Your task to perform on an android device: Is it going to rain tomorrow? Image 0: 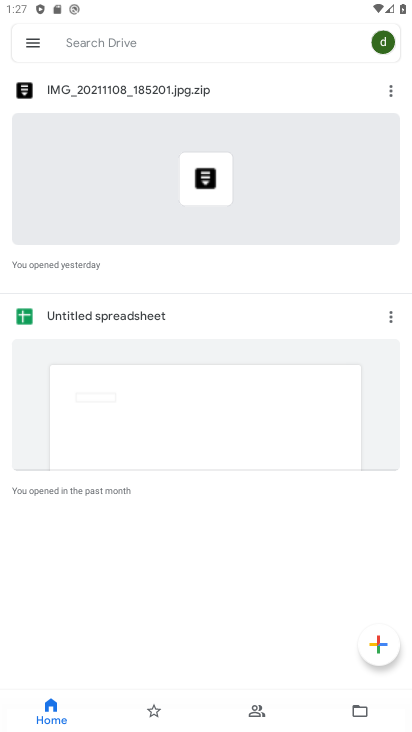
Step 0: press back button
Your task to perform on an android device: Is it going to rain tomorrow? Image 1: 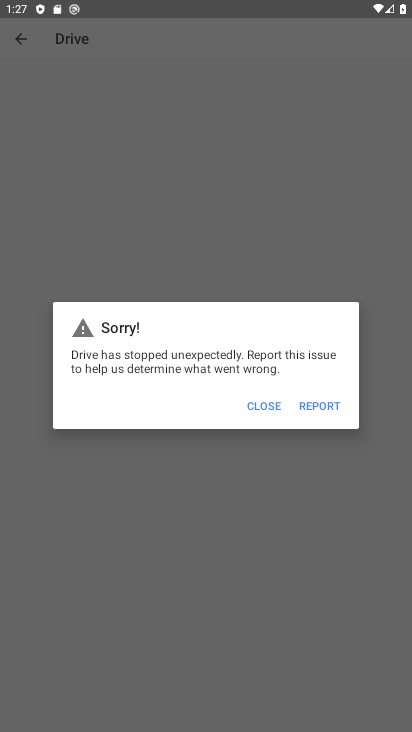
Step 1: press back button
Your task to perform on an android device: Is it going to rain tomorrow? Image 2: 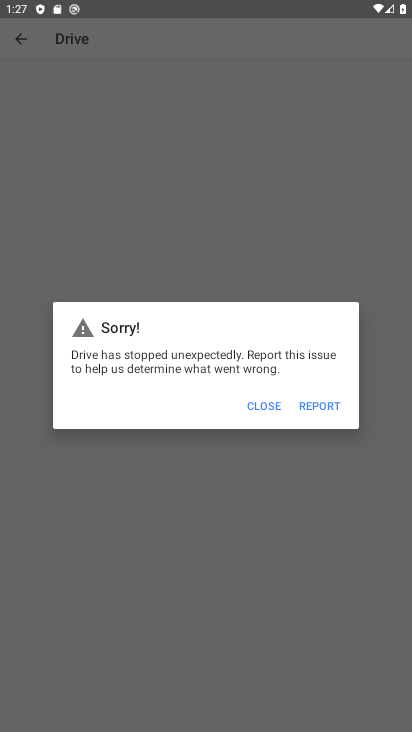
Step 2: press back button
Your task to perform on an android device: Is it going to rain tomorrow? Image 3: 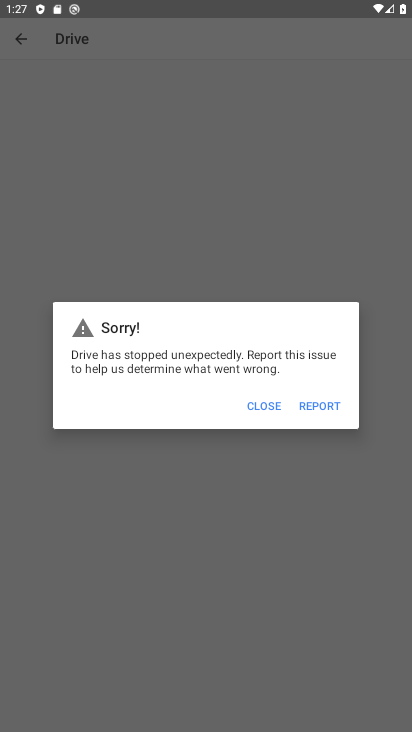
Step 3: press home button
Your task to perform on an android device: Is it going to rain tomorrow? Image 4: 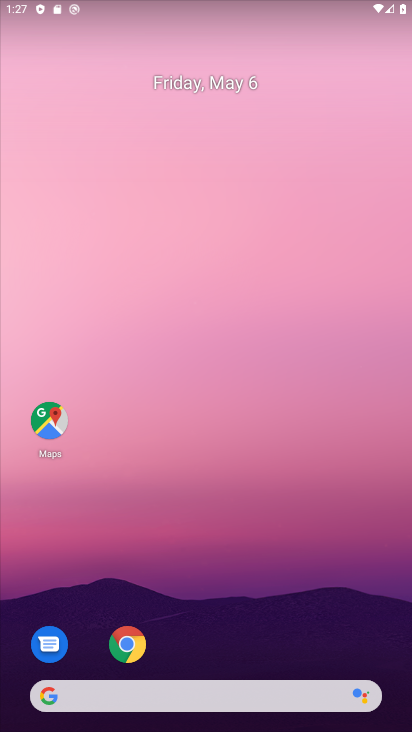
Step 4: click (183, 695)
Your task to perform on an android device: Is it going to rain tomorrow? Image 5: 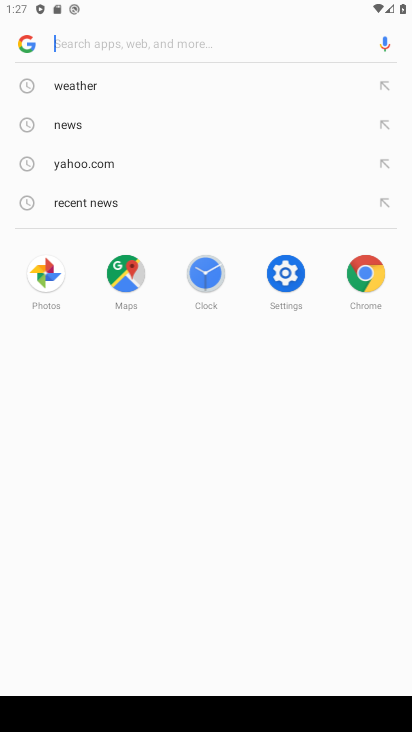
Step 5: click (103, 84)
Your task to perform on an android device: Is it going to rain tomorrow? Image 6: 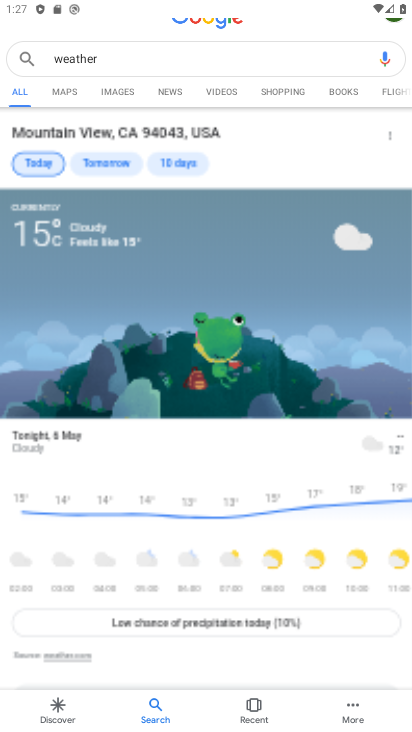
Step 6: click (101, 158)
Your task to perform on an android device: Is it going to rain tomorrow? Image 7: 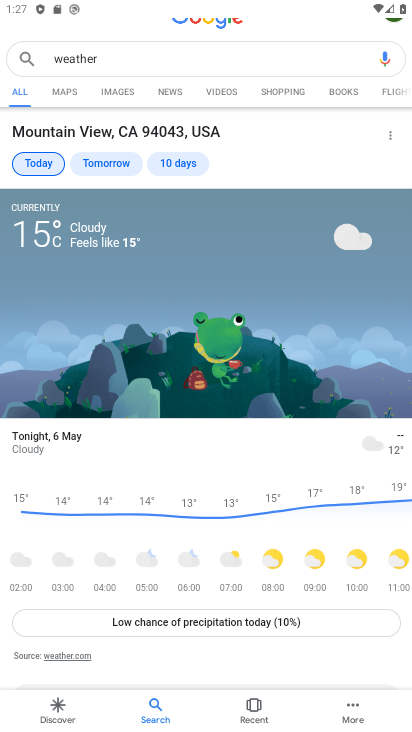
Step 7: click (101, 161)
Your task to perform on an android device: Is it going to rain tomorrow? Image 8: 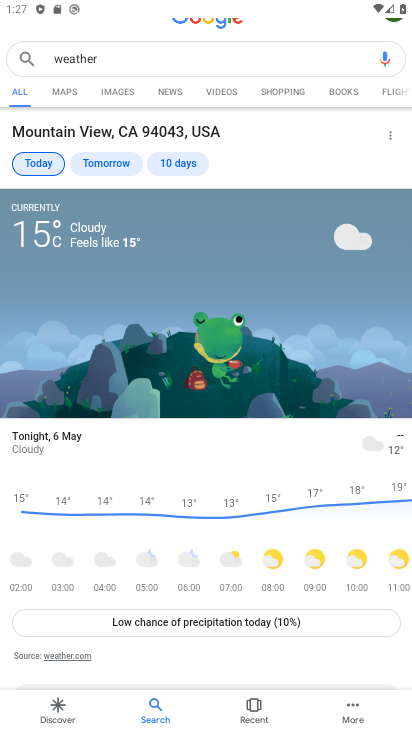
Step 8: click (101, 161)
Your task to perform on an android device: Is it going to rain tomorrow? Image 9: 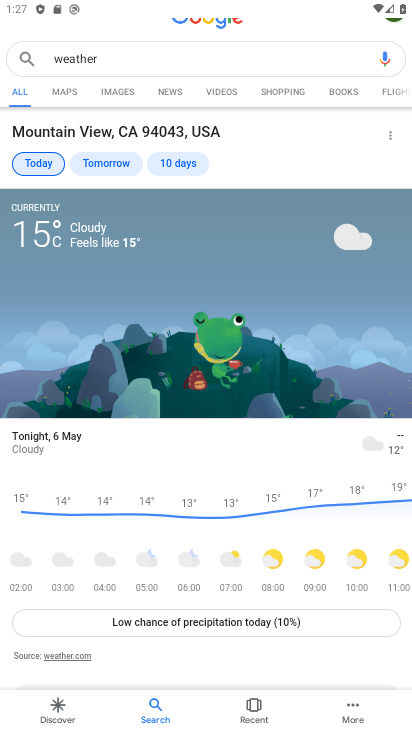
Step 9: click (109, 166)
Your task to perform on an android device: Is it going to rain tomorrow? Image 10: 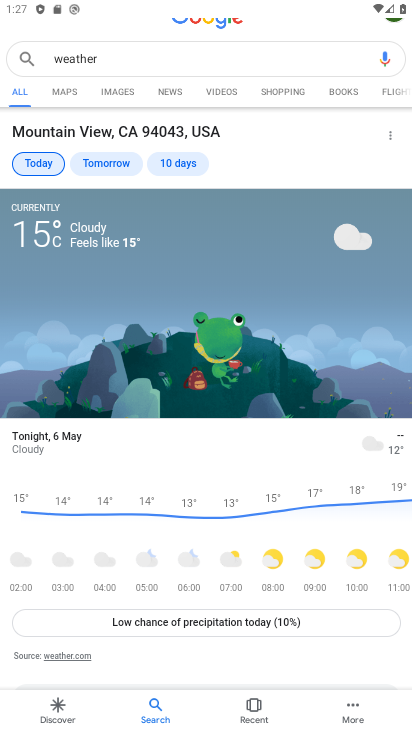
Step 10: drag from (341, 521) to (9, 538)
Your task to perform on an android device: Is it going to rain tomorrow? Image 11: 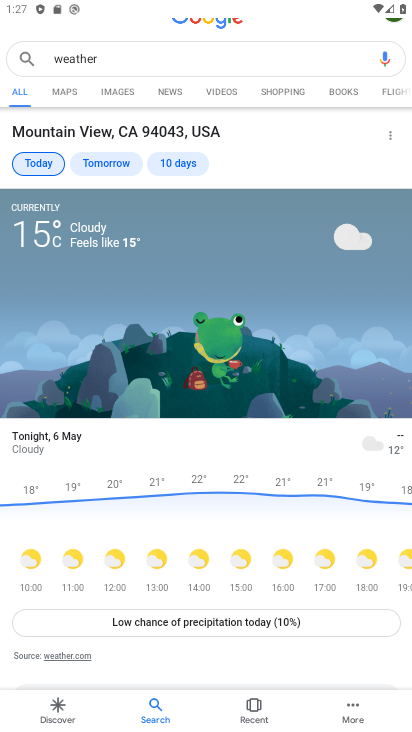
Step 11: drag from (239, 597) to (288, 99)
Your task to perform on an android device: Is it going to rain tomorrow? Image 12: 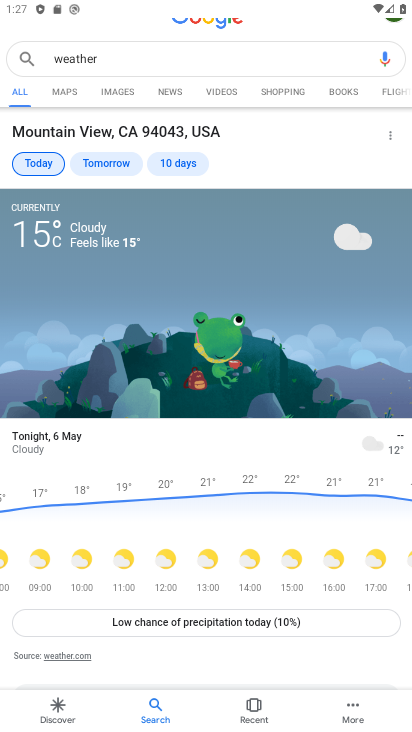
Step 12: click (91, 170)
Your task to perform on an android device: Is it going to rain tomorrow? Image 13: 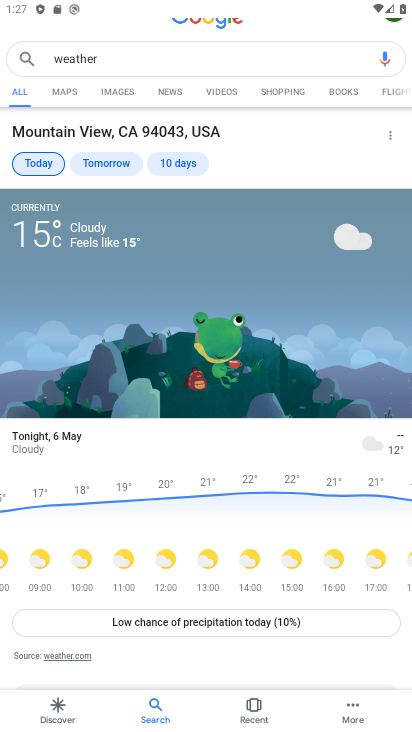
Step 13: task complete